Your task to perform on an android device: Open calendar and show me the fourth week of next month Image 0: 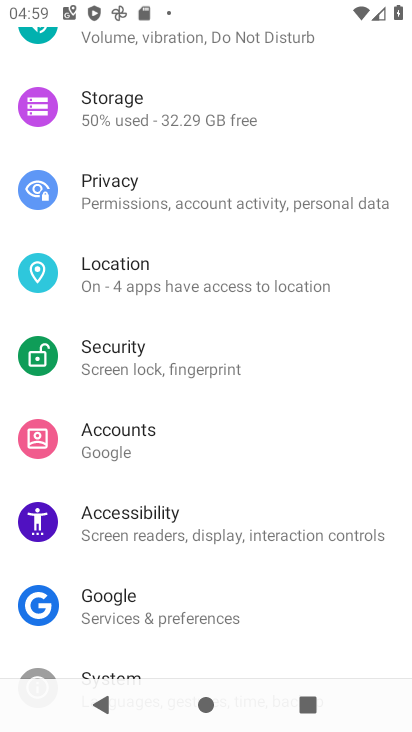
Step 0: task complete